Your task to perform on an android device: Open display settings Image 0: 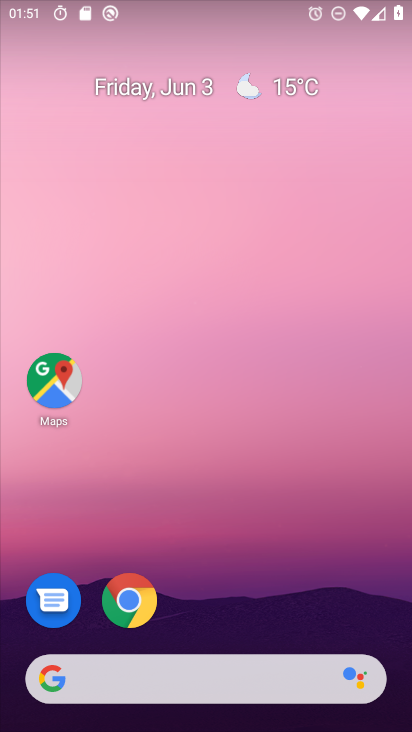
Step 0: drag from (210, 593) to (273, 48)
Your task to perform on an android device: Open display settings Image 1: 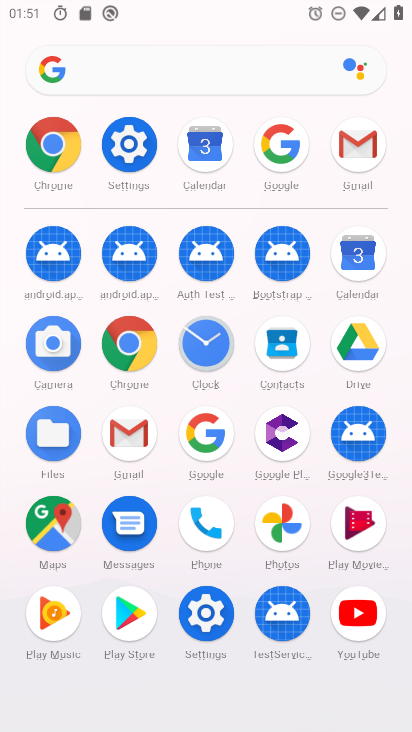
Step 1: click (132, 135)
Your task to perform on an android device: Open display settings Image 2: 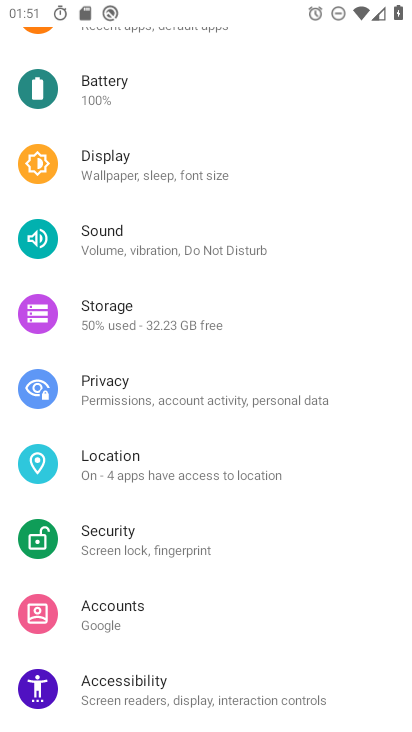
Step 2: click (127, 164)
Your task to perform on an android device: Open display settings Image 3: 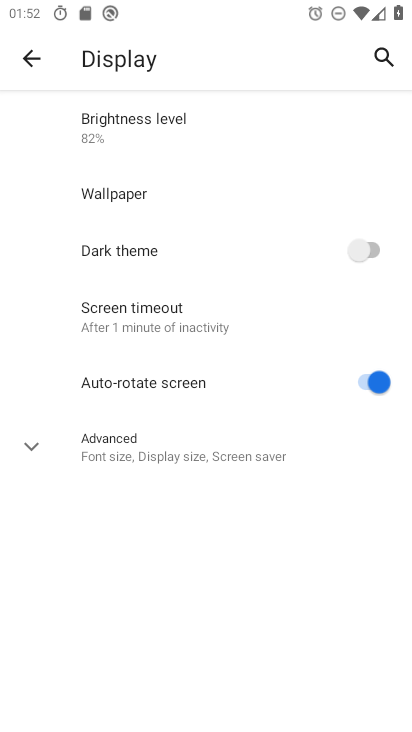
Step 3: task complete